Your task to perform on an android device: change the clock display to analog Image 0: 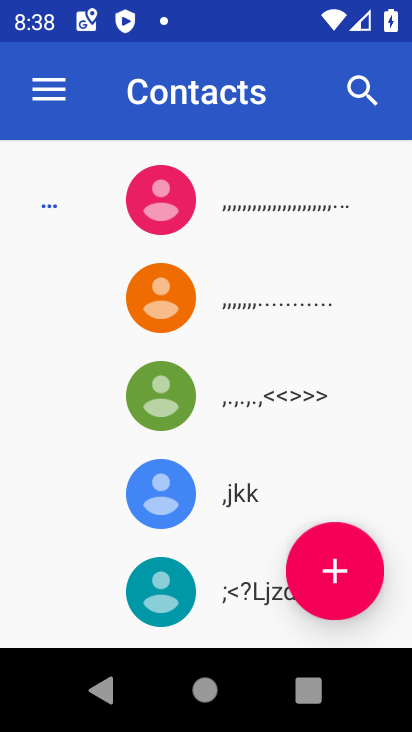
Step 0: press home button
Your task to perform on an android device: change the clock display to analog Image 1: 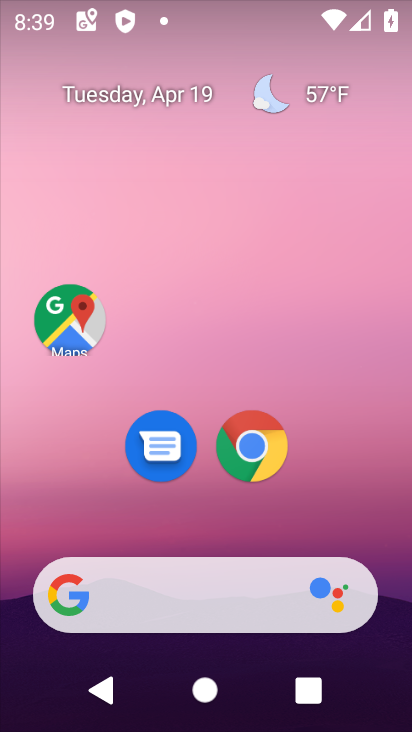
Step 1: drag from (340, 487) to (287, 69)
Your task to perform on an android device: change the clock display to analog Image 2: 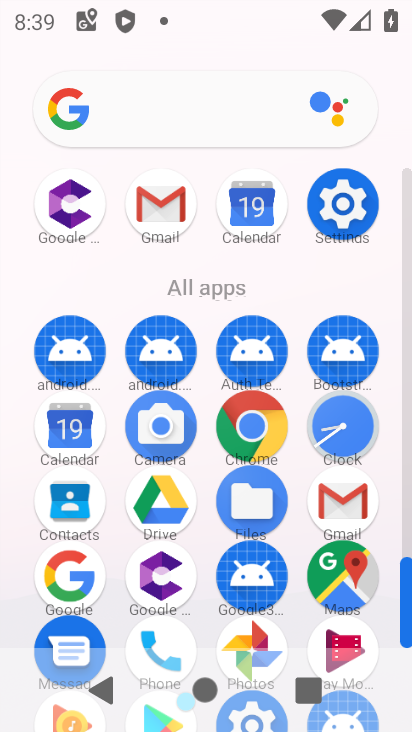
Step 2: click (338, 427)
Your task to perform on an android device: change the clock display to analog Image 3: 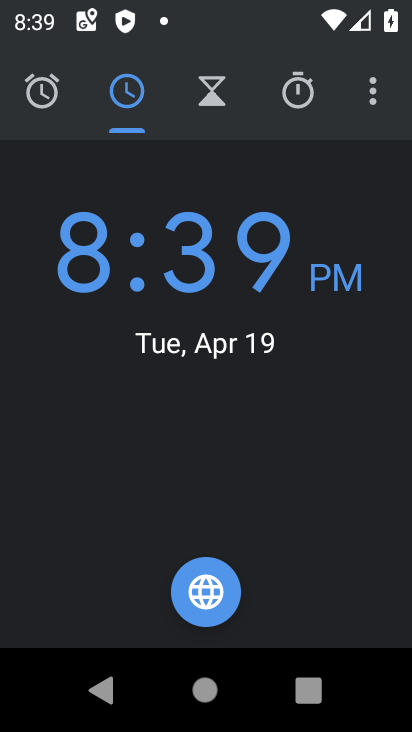
Step 3: click (365, 80)
Your task to perform on an android device: change the clock display to analog Image 4: 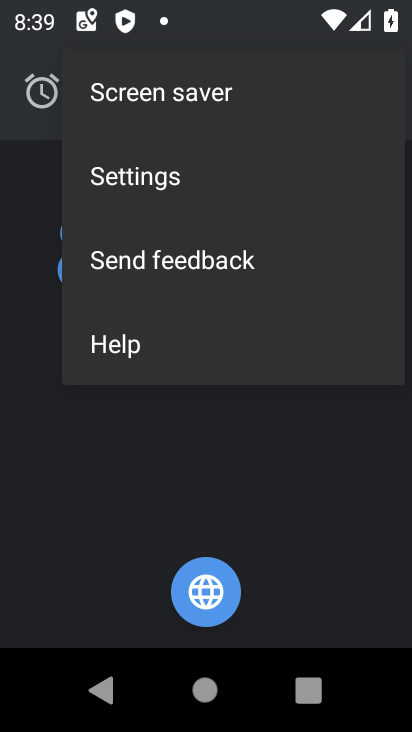
Step 4: click (153, 179)
Your task to perform on an android device: change the clock display to analog Image 5: 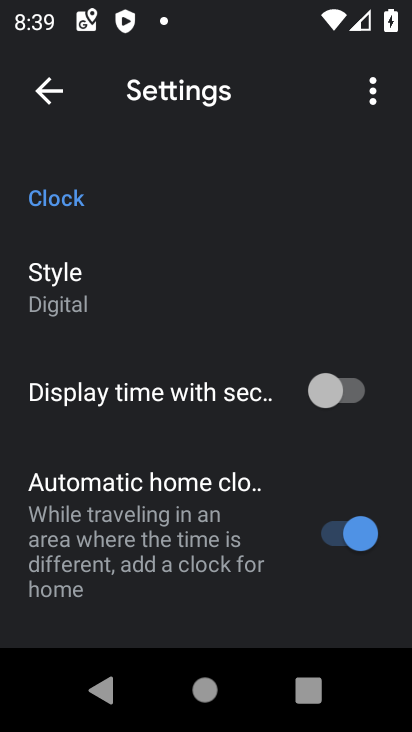
Step 5: click (57, 300)
Your task to perform on an android device: change the clock display to analog Image 6: 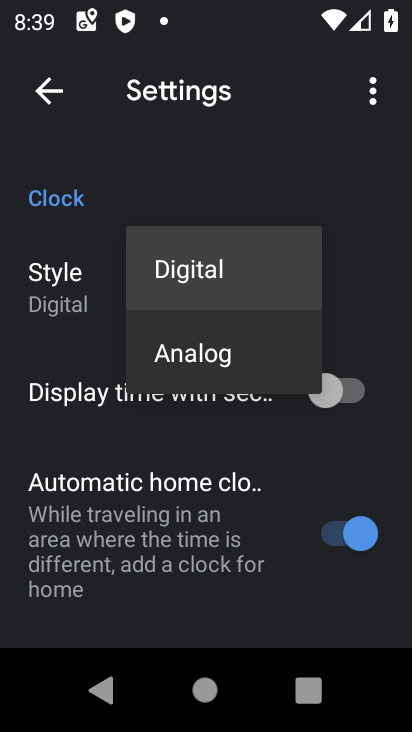
Step 6: click (183, 359)
Your task to perform on an android device: change the clock display to analog Image 7: 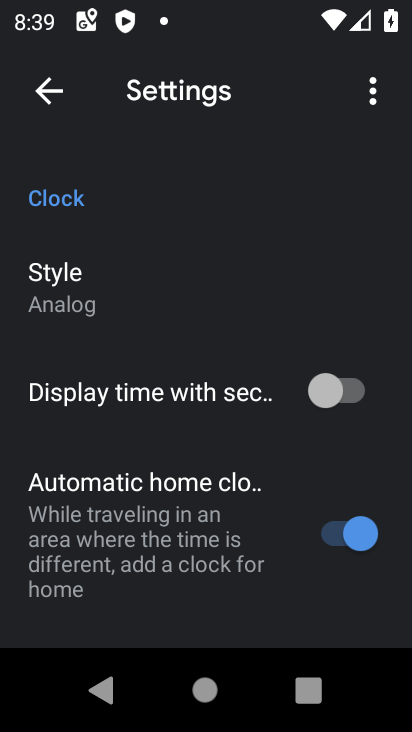
Step 7: task complete